Your task to perform on an android device: make emails show in primary in the gmail app Image 0: 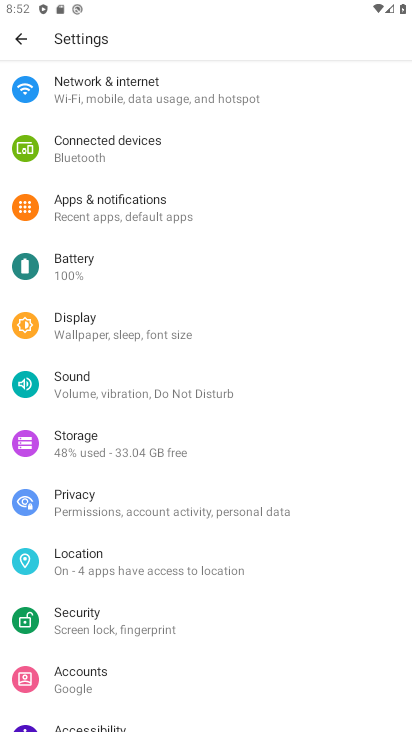
Step 0: press home button
Your task to perform on an android device: make emails show in primary in the gmail app Image 1: 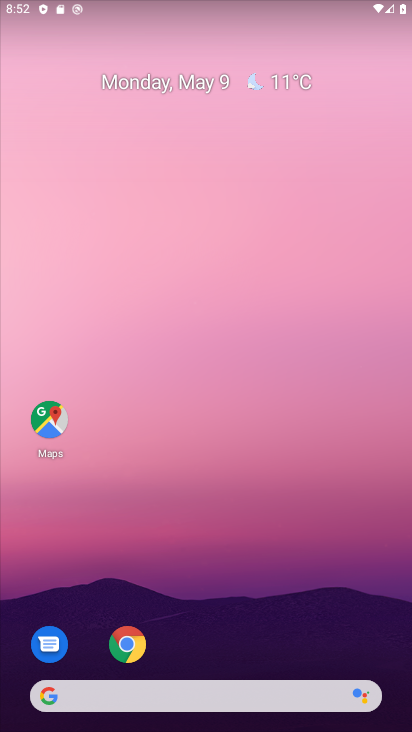
Step 1: drag from (230, 697) to (191, 2)
Your task to perform on an android device: make emails show in primary in the gmail app Image 2: 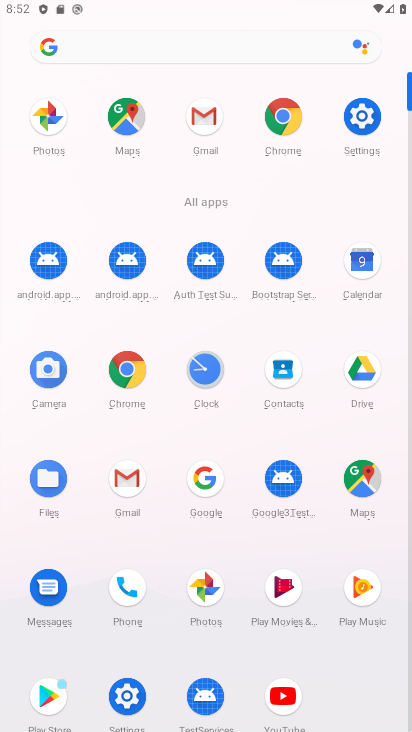
Step 2: click (128, 475)
Your task to perform on an android device: make emails show in primary in the gmail app Image 3: 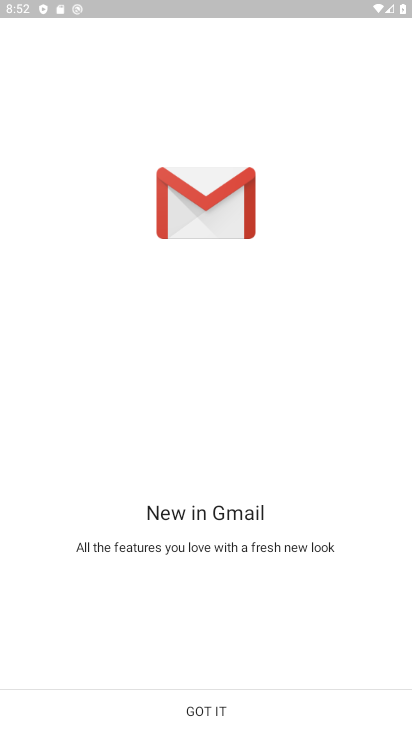
Step 3: click (193, 710)
Your task to perform on an android device: make emails show in primary in the gmail app Image 4: 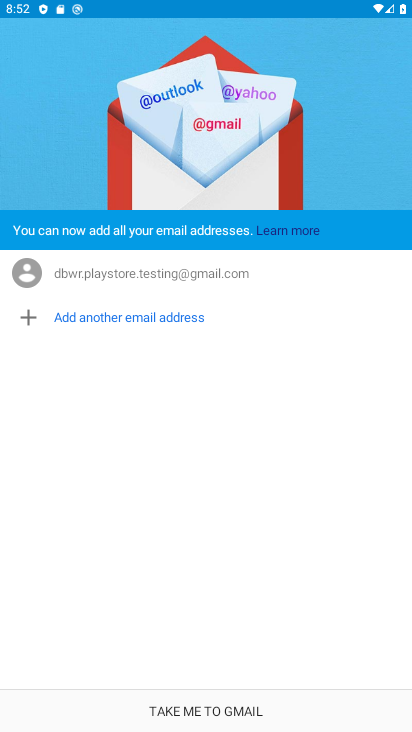
Step 4: click (187, 710)
Your task to perform on an android device: make emails show in primary in the gmail app Image 5: 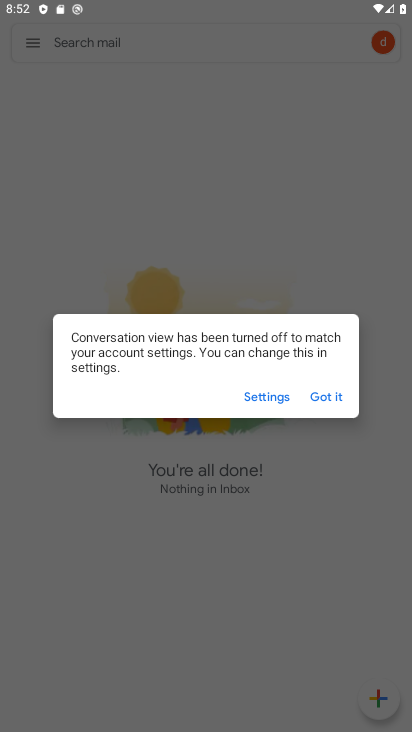
Step 5: click (326, 386)
Your task to perform on an android device: make emails show in primary in the gmail app Image 6: 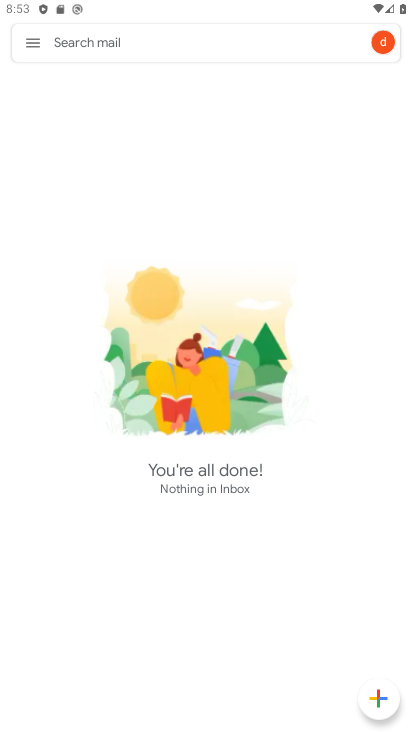
Step 6: click (33, 39)
Your task to perform on an android device: make emails show in primary in the gmail app Image 7: 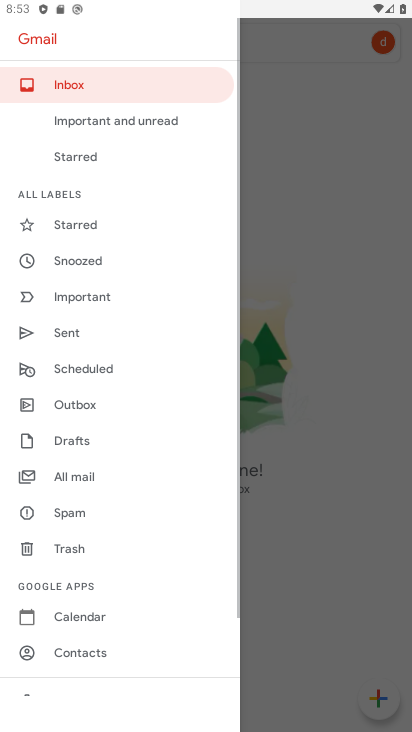
Step 7: drag from (146, 610) to (149, 301)
Your task to perform on an android device: make emails show in primary in the gmail app Image 8: 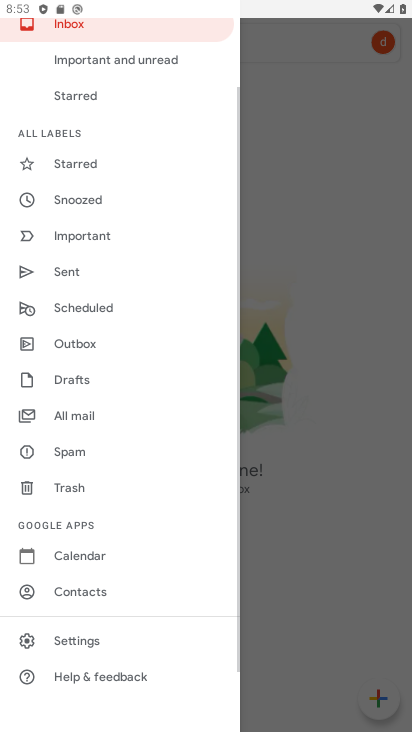
Step 8: click (74, 640)
Your task to perform on an android device: make emails show in primary in the gmail app Image 9: 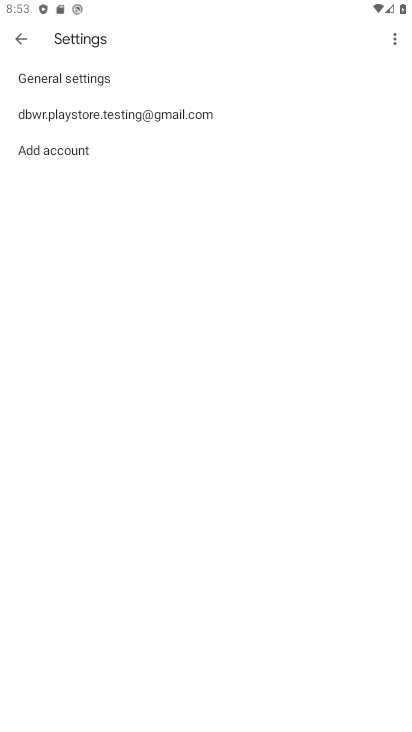
Step 9: click (96, 128)
Your task to perform on an android device: make emails show in primary in the gmail app Image 10: 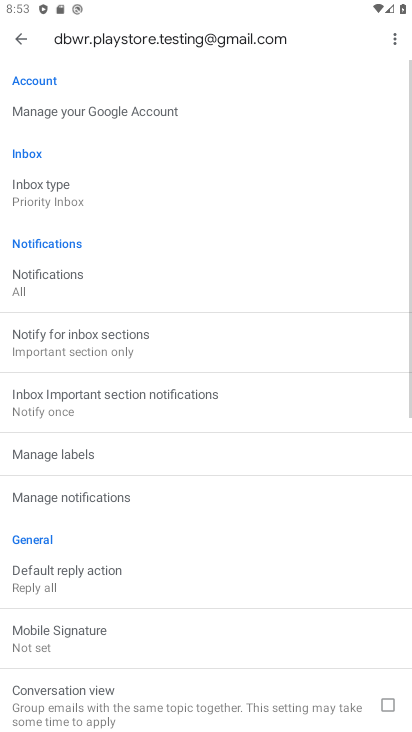
Step 10: click (80, 202)
Your task to perform on an android device: make emails show in primary in the gmail app Image 11: 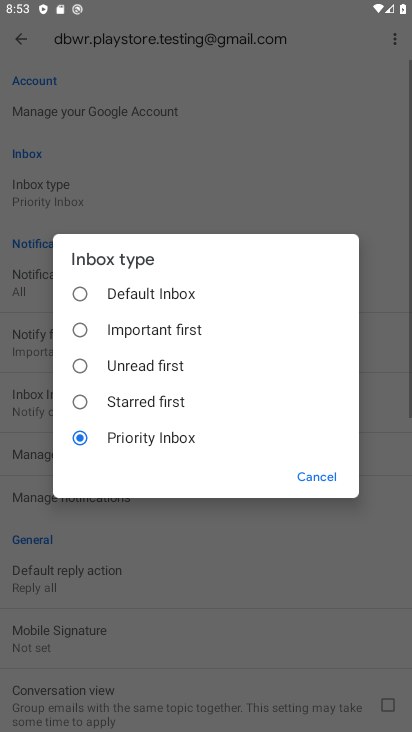
Step 11: click (138, 165)
Your task to perform on an android device: make emails show in primary in the gmail app Image 12: 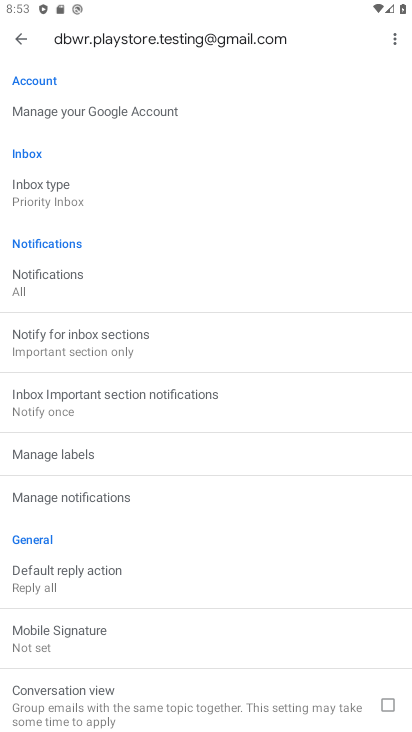
Step 12: click (54, 211)
Your task to perform on an android device: make emails show in primary in the gmail app Image 13: 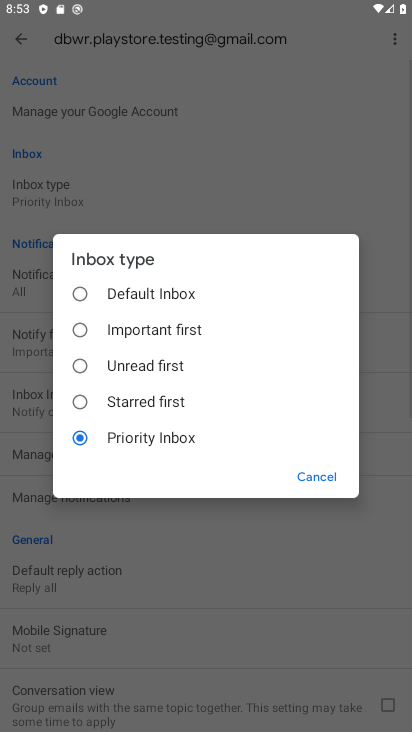
Step 13: click (91, 281)
Your task to perform on an android device: make emails show in primary in the gmail app Image 14: 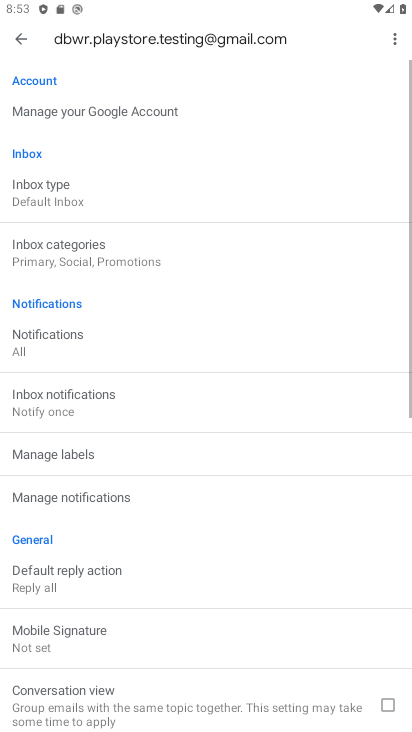
Step 14: click (17, 48)
Your task to perform on an android device: make emails show in primary in the gmail app Image 15: 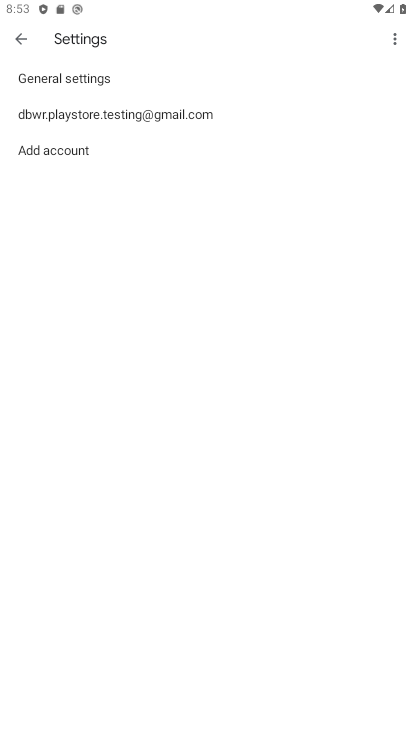
Step 15: click (26, 46)
Your task to perform on an android device: make emails show in primary in the gmail app Image 16: 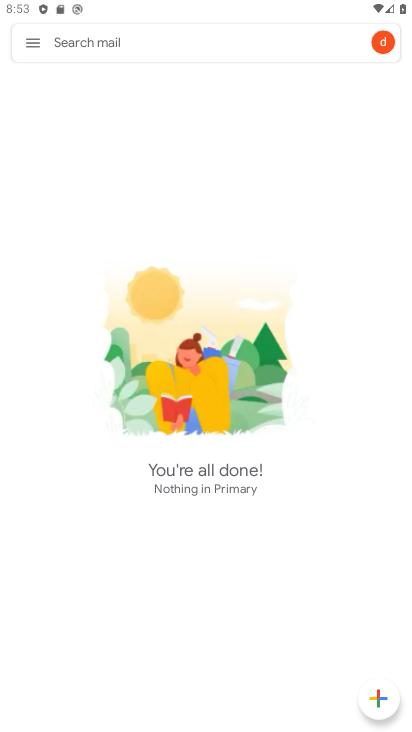
Step 16: task complete